Your task to perform on an android device: open device folders in google photos Image 0: 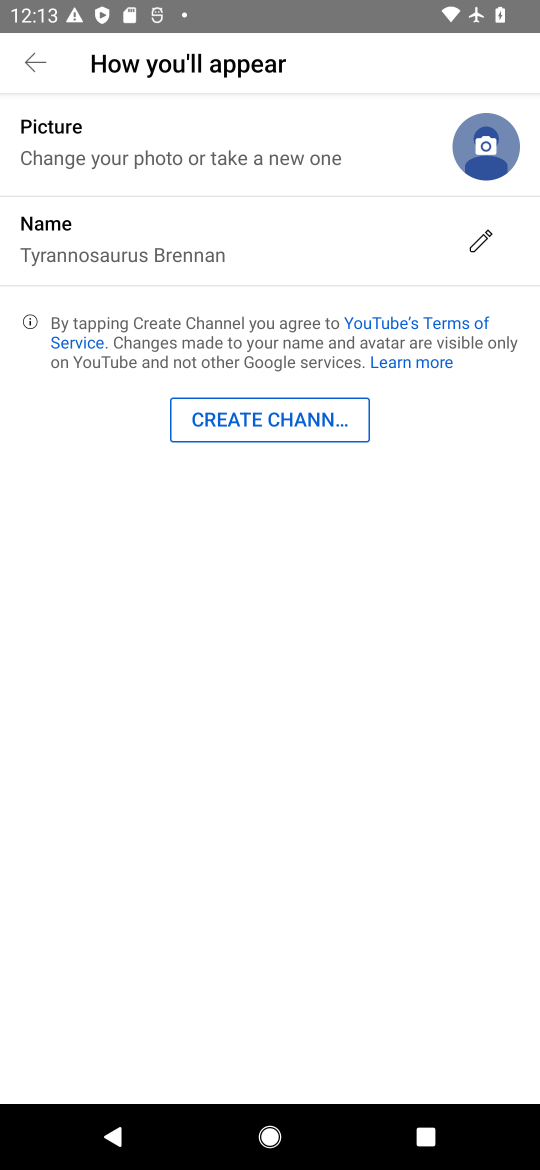
Step 0: press home button
Your task to perform on an android device: open device folders in google photos Image 1: 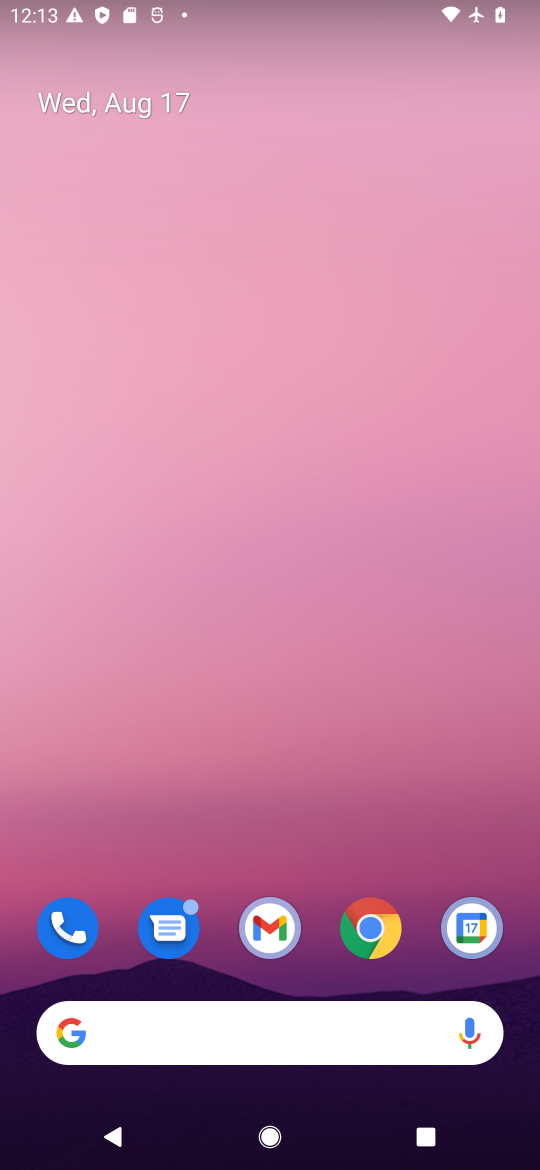
Step 1: drag from (336, 786) to (321, 268)
Your task to perform on an android device: open device folders in google photos Image 2: 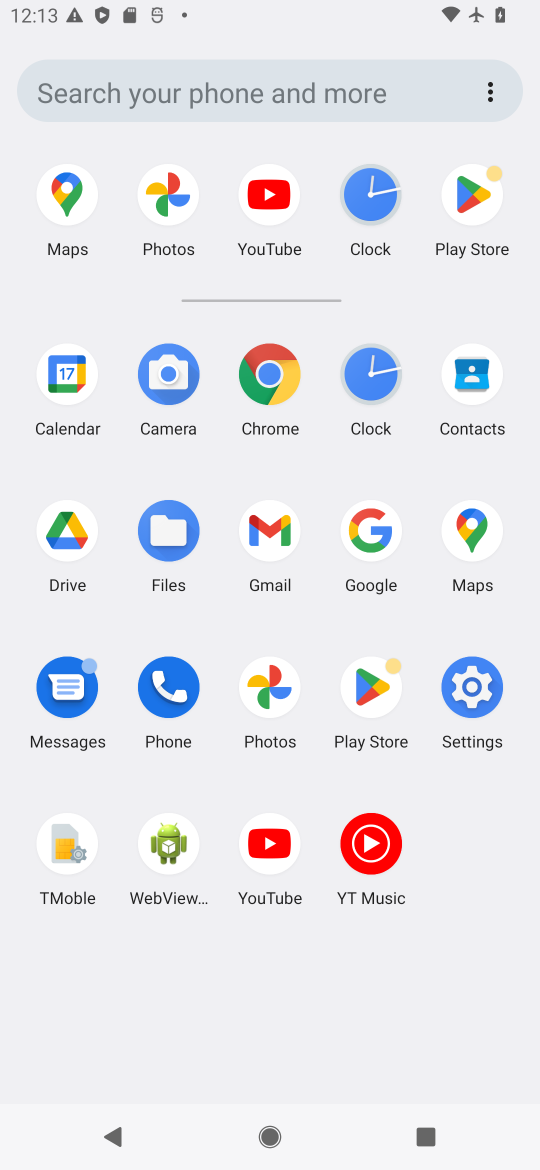
Step 2: click (175, 211)
Your task to perform on an android device: open device folders in google photos Image 3: 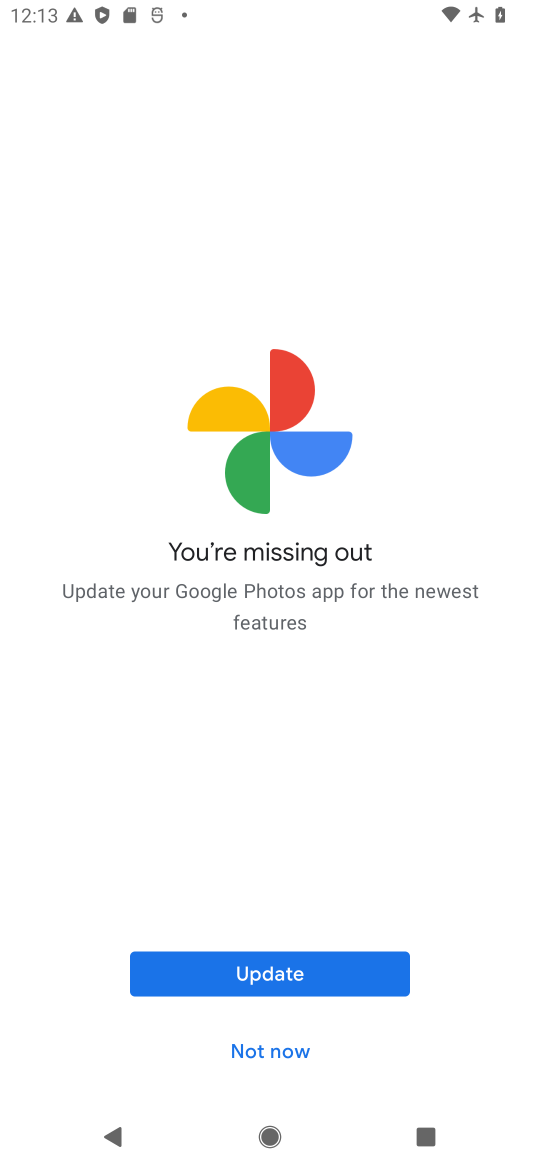
Step 3: click (257, 1064)
Your task to perform on an android device: open device folders in google photos Image 4: 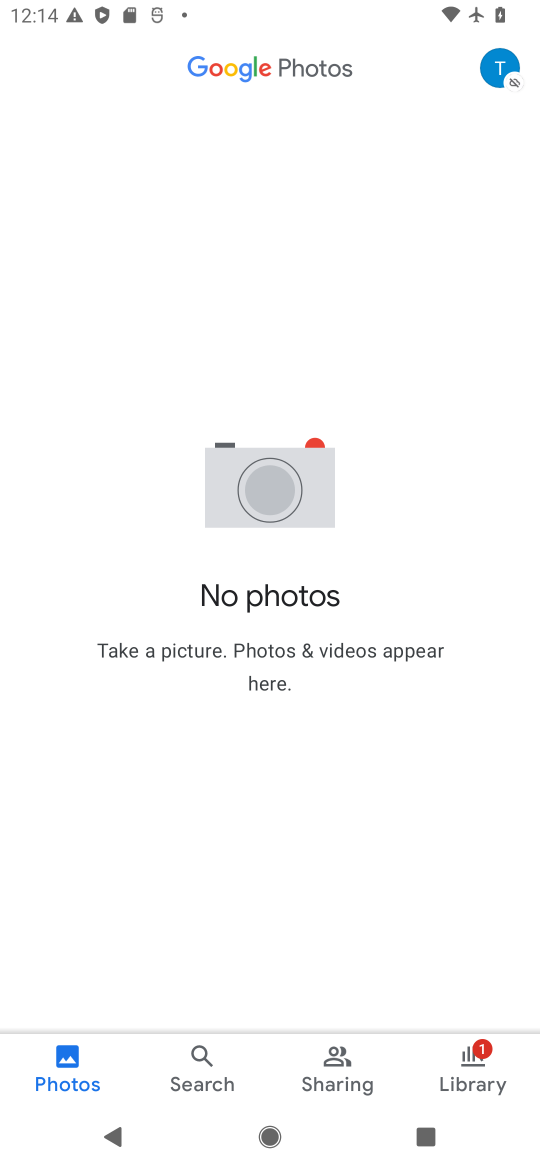
Step 4: click (513, 77)
Your task to perform on an android device: open device folders in google photos Image 5: 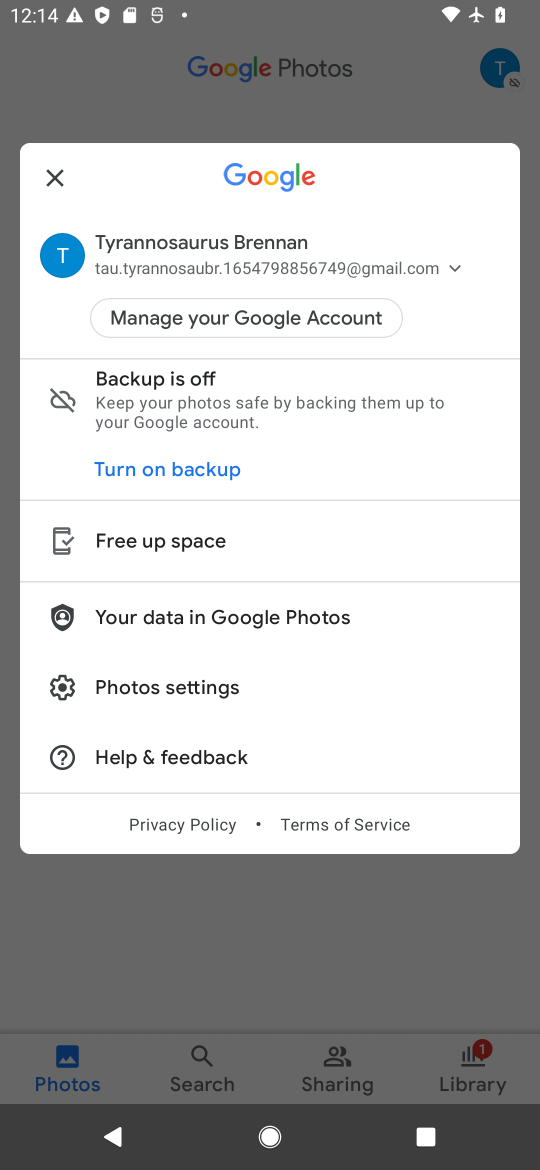
Step 5: task complete